Your task to perform on an android device: When is my next meeting? Image 0: 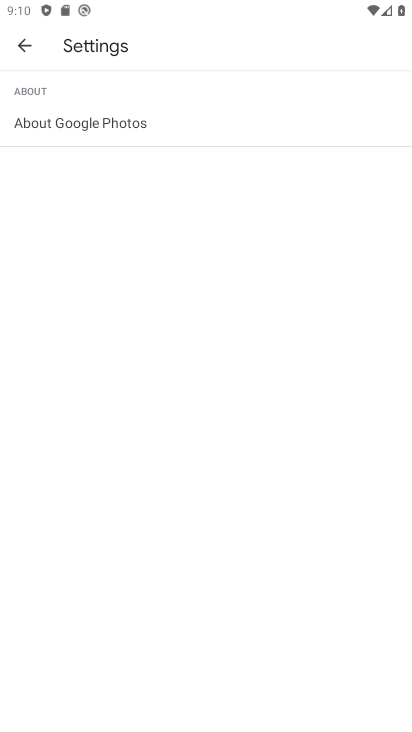
Step 0: press home button
Your task to perform on an android device: When is my next meeting? Image 1: 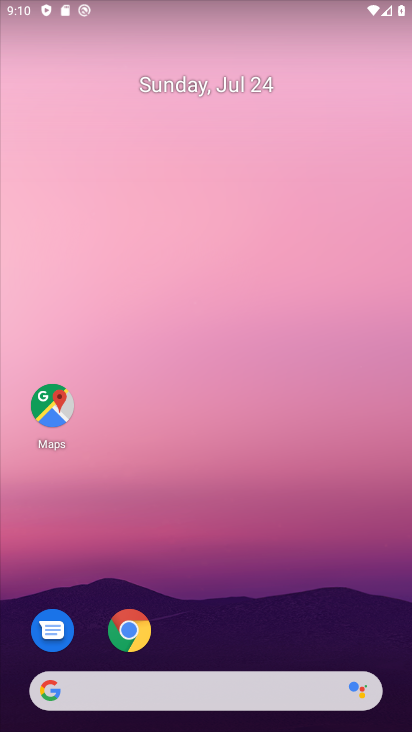
Step 1: drag from (221, 612) to (228, 54)
Your task to perform on an android device: When is my next meeting? Image 2: 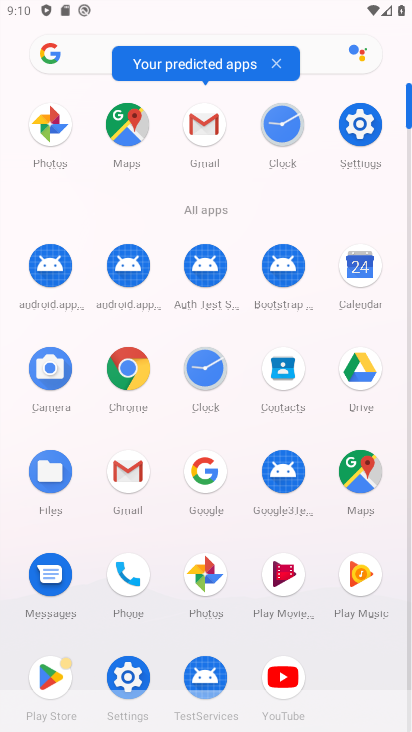
Step 2: click (353, 267)
Your task to perform on an android device: When is my next meeting? Image 3: 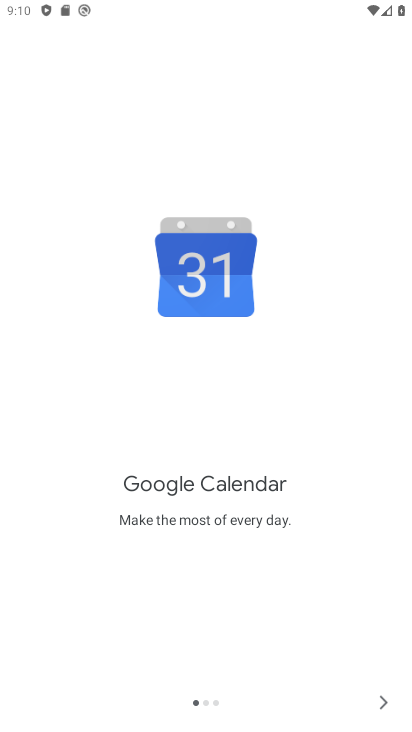
Step 3: click (386, 702)
Your task to perform on an android device: When is my next meeting? Image 4: 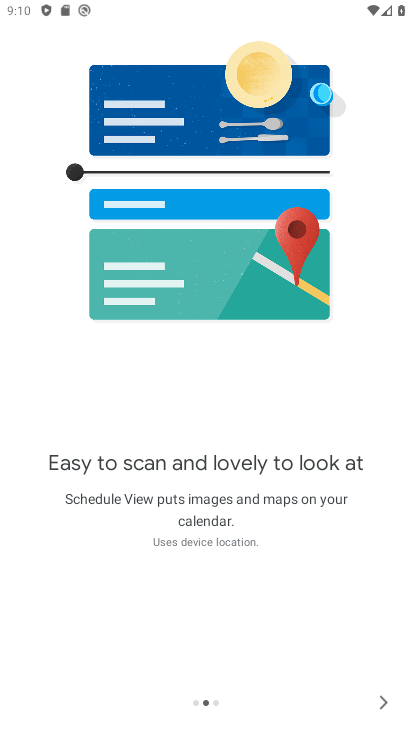
Step 4: click (386, 702)
Your task to perform on an android device: When is my next meeting? Image 5: 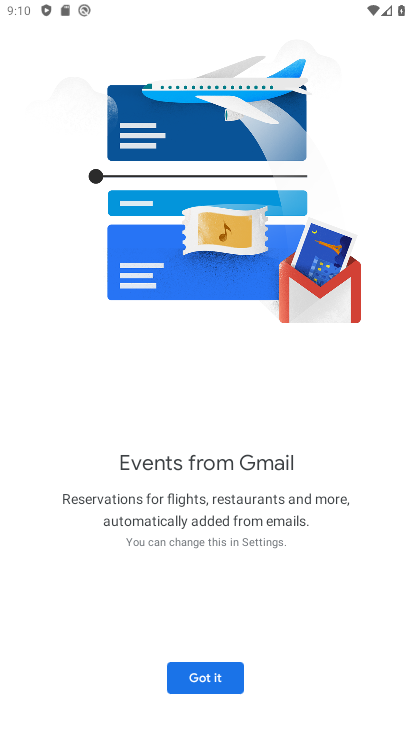
Step 5: click (205, 672)
Your task to perform on an android device: When is my next meeting? Image 6: 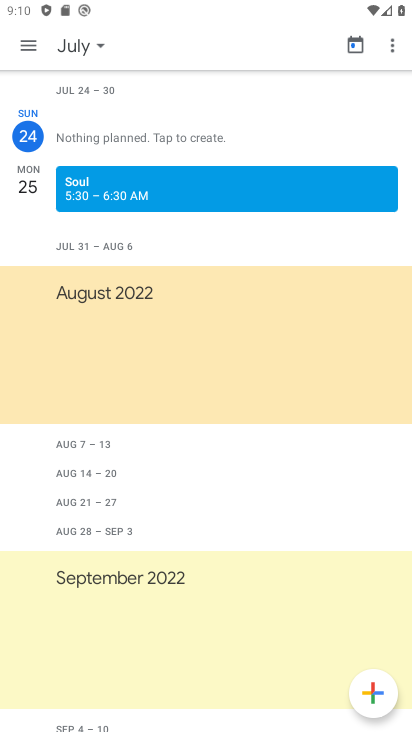
Step 6: click (70, 49)
Your task to perform on an android device: When is my next meeting? Image 7: 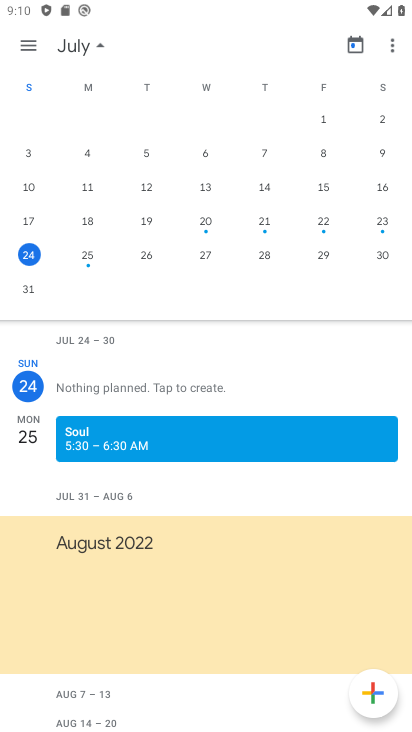
Step 7: click (73, 262)
Your task to perform on an android device: When is my next meeting? Image 8: 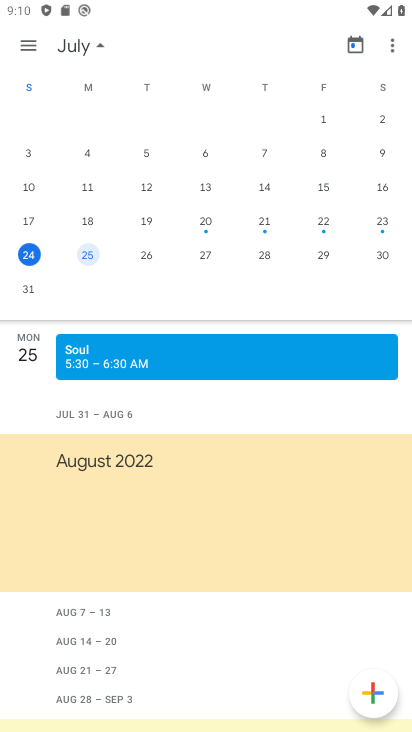
Step 8: task complete